Your task to perform on an android device: make emails show in primary in the gmail app Image 0: 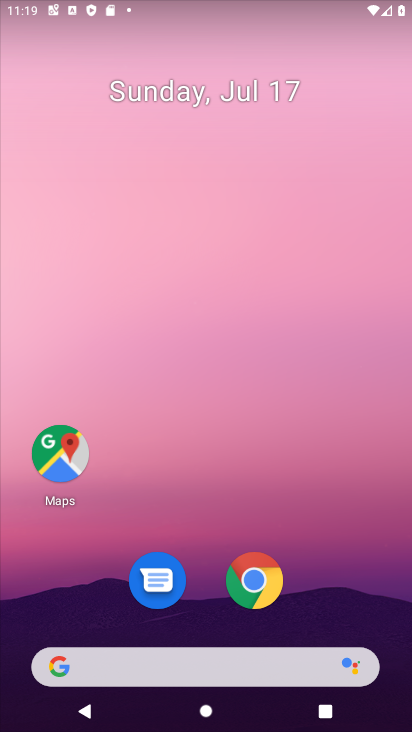
Step 0: drag from (192, 619) to (29, 131)
Your task to perform on an android device: make emails show in primary in the gmail app Image 1: 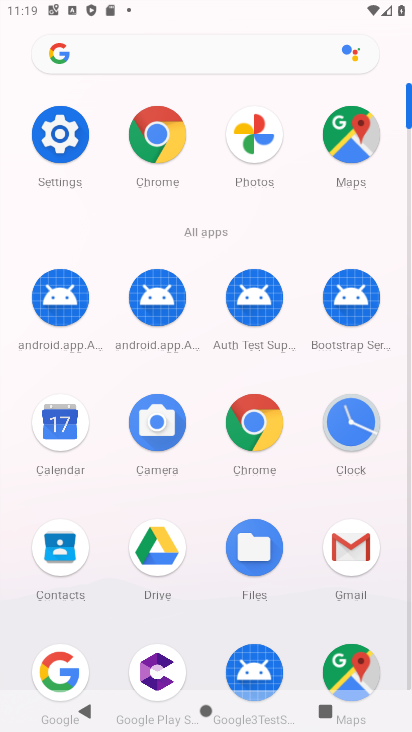
Step 1: click (334, 569)
Your task to perform on an android device: make emails show in primary in the gmail app Image 2: 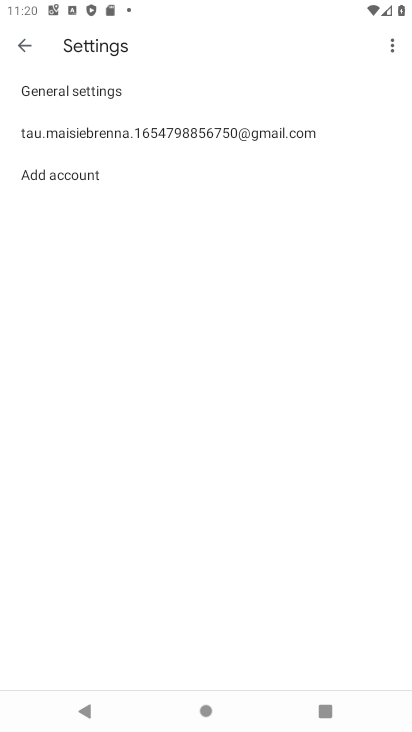
Step 2: click (34, 49)
Your task to perform on an android device: make emails show in primary in the gmail app Image 3: 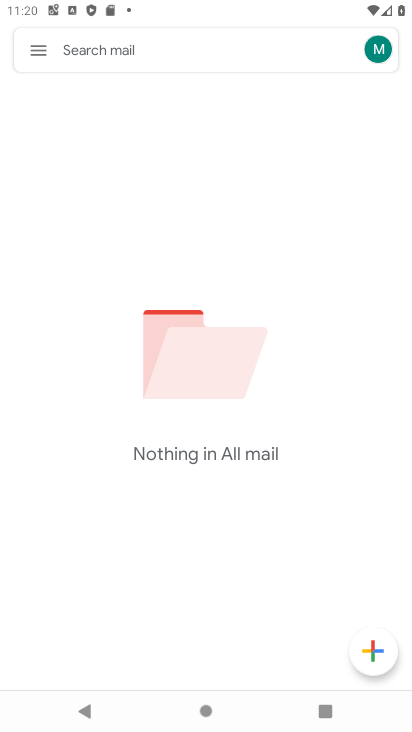
Step 3: task complete